Your task to perform on an android device: Open the calendar app, open the side menu, and click the "Day" option Image 0: 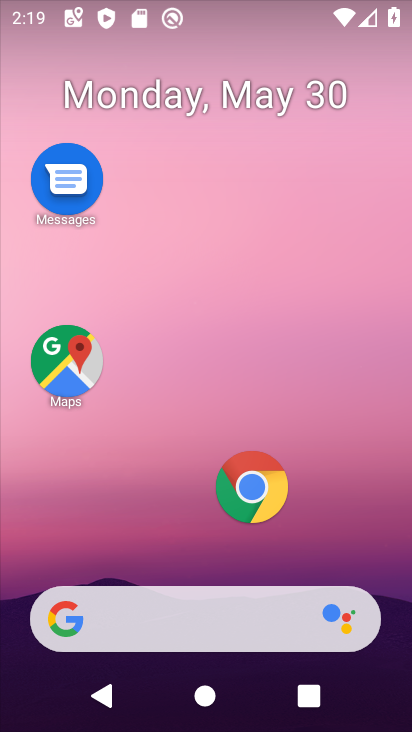
Step 0: drag from (246, 567) to (223, 97)
Your task to perform on an android device: Open the calendar app, open the side menu, and click the "Day" option Image 1: 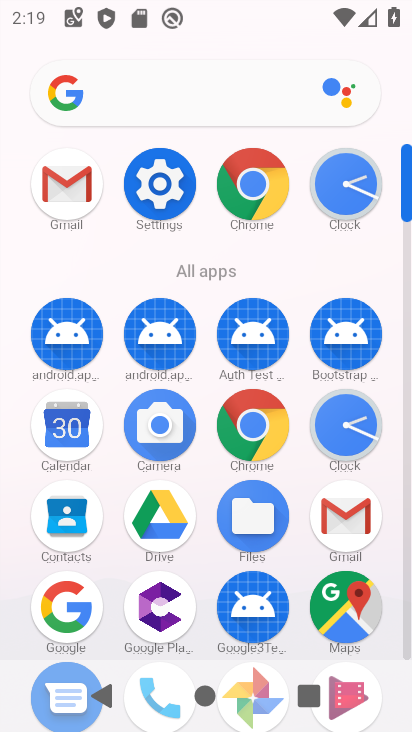
Step 1: click (65, 454)
Your task to perform on an android device: Open the calendar app, open the side menu, and click the "Day" option Image 2: 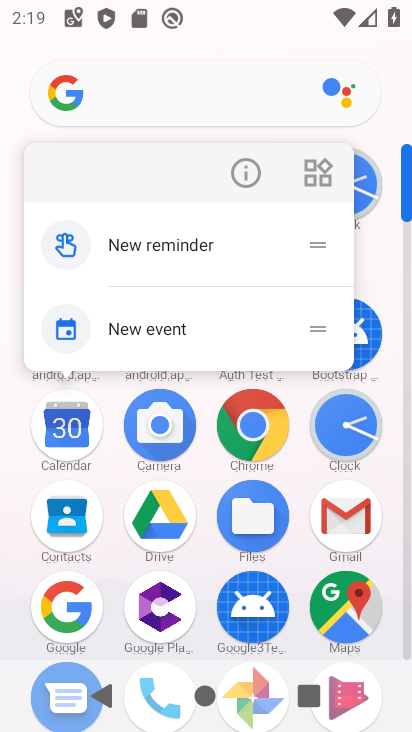
Step 2: click (72, 433)
Your task to perform on an android device: Open the calendar app, open the side menu, and click the "Day" option Image 3: 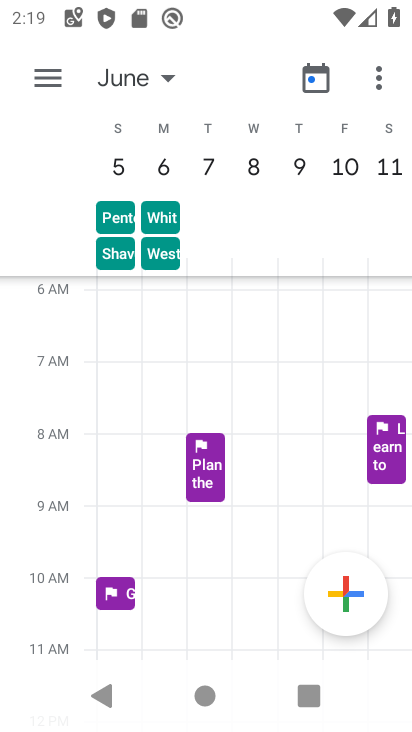
Step 3: click (50, 69)
Your task to perform on an android device: Open the calendar app, open the side menu, and click the "Day" option Image 4: 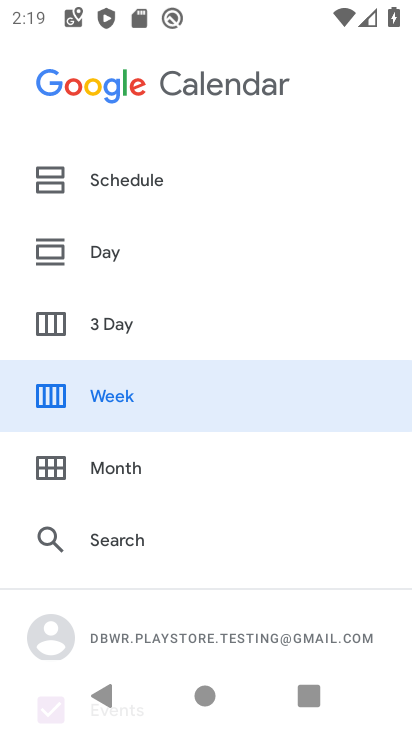
Step 4: click (123, 248)
Your task to perform on an android device: Open the calendar app, open the side menu, and click the "Day" option Image 5: 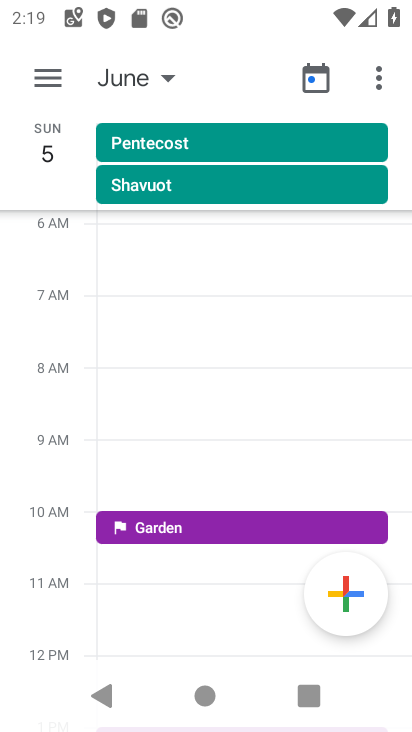
Step 5: task complete